Your task to perform on an android device: Go to CNN.com Image 0: 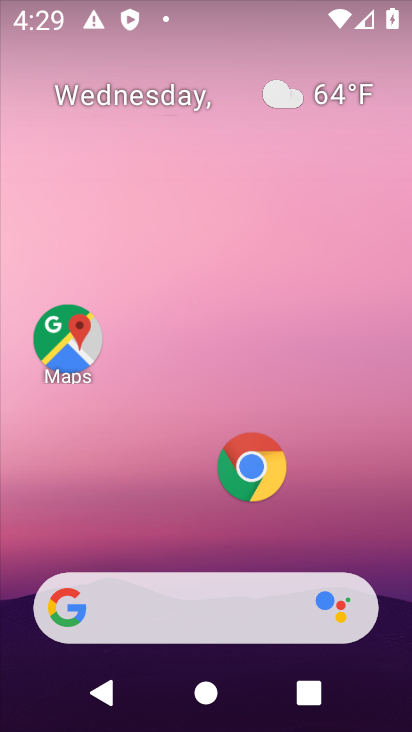
Step 0: click (166, 439)
Your task to perform on an android device: Go to CNN.com Image 1: 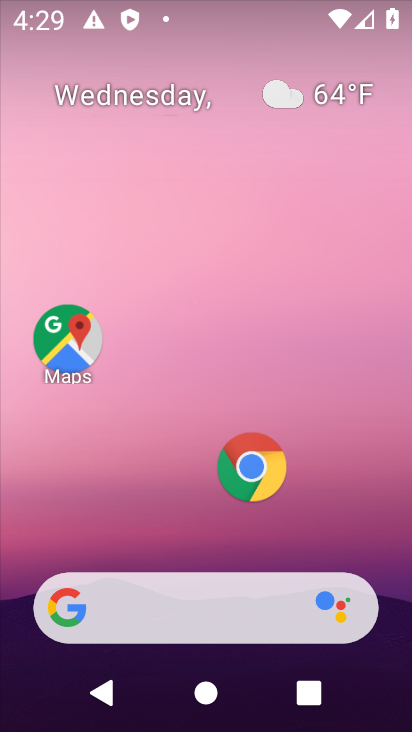
Step 1: click (187, 606)
Your task to perform on an android device: Go to CNN.com Image 2: 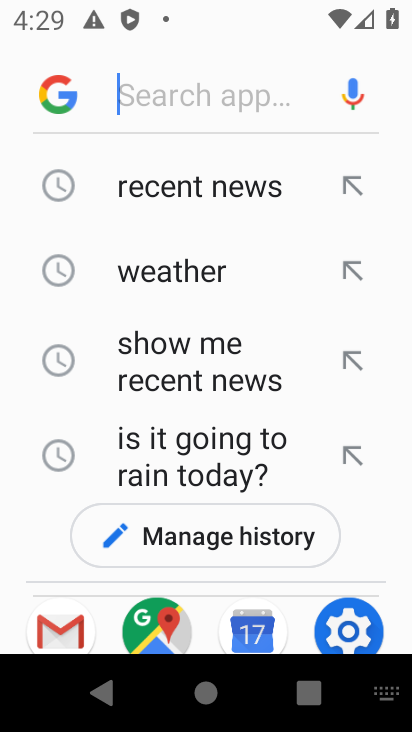
Step 2: type "CNN.com"
Your task to perform on an android device: Go to CNN.com Image 3: 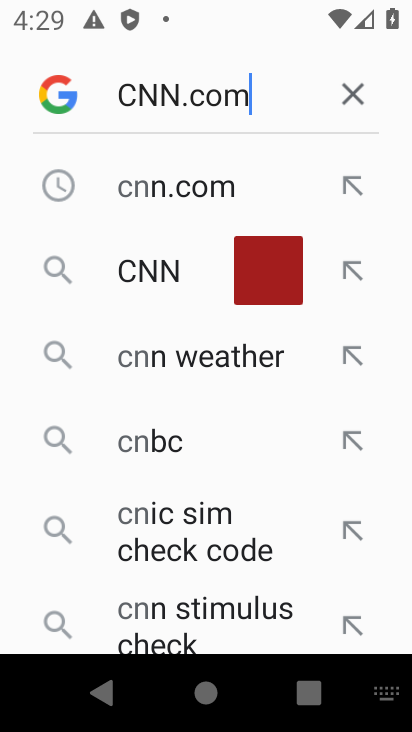
Step 3: type ""
Your task to perform on an android device: Go to CNN.com Image 4: 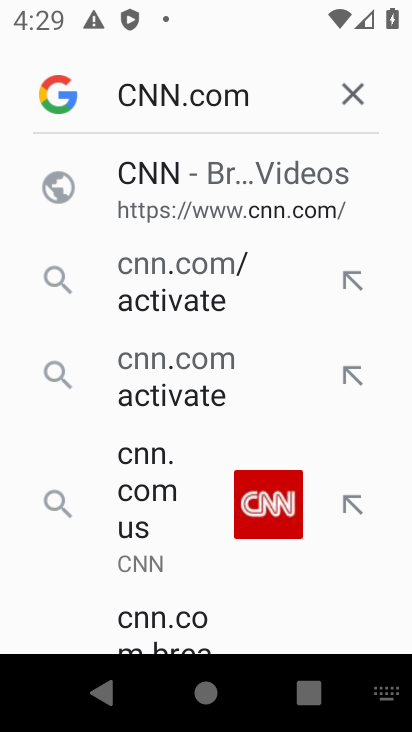
Step 4: press enter
Your task to perform on an android device: Go to CNN.com Image 5: 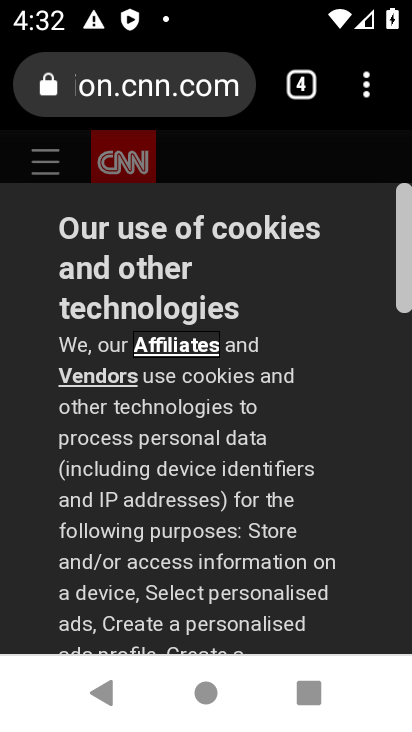
Step 5: task complete